Your task to perform on an android device: toggle pop-ups in chrome Image 0: 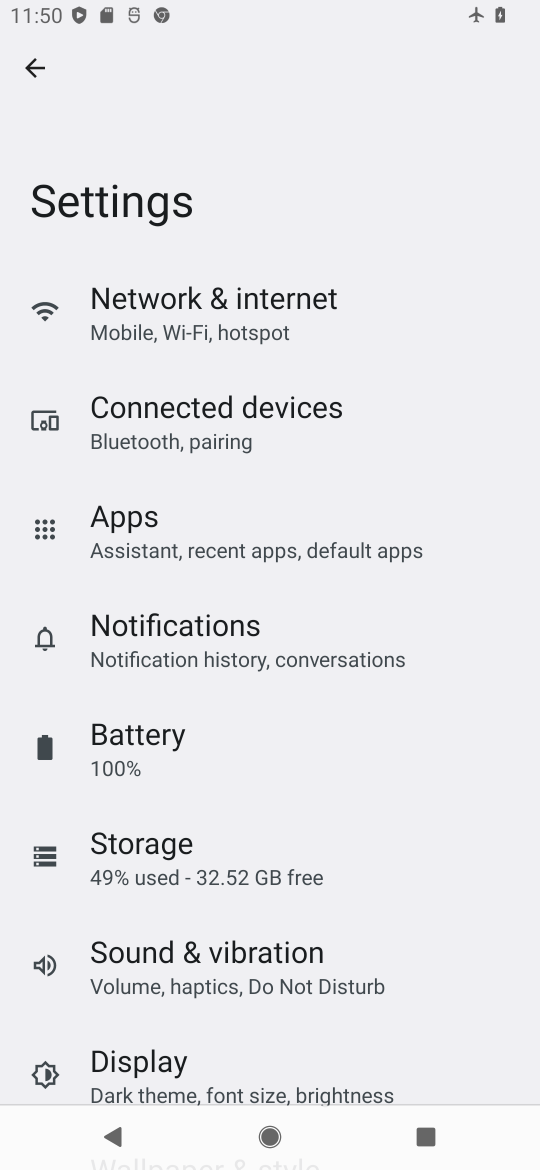
Step 0: press home button
Your task to perform on an android device: toggle pop-ups in chrome Image 1: 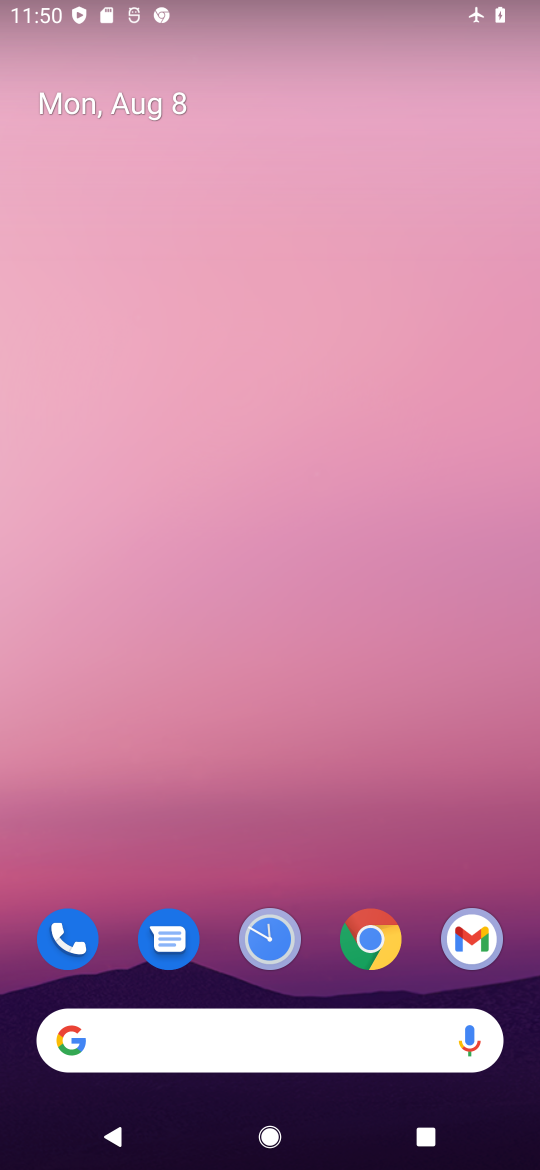
Step 1: click (372, 938)
Your task to perform on an android device: toggle pop-ups in chrome Image 2: 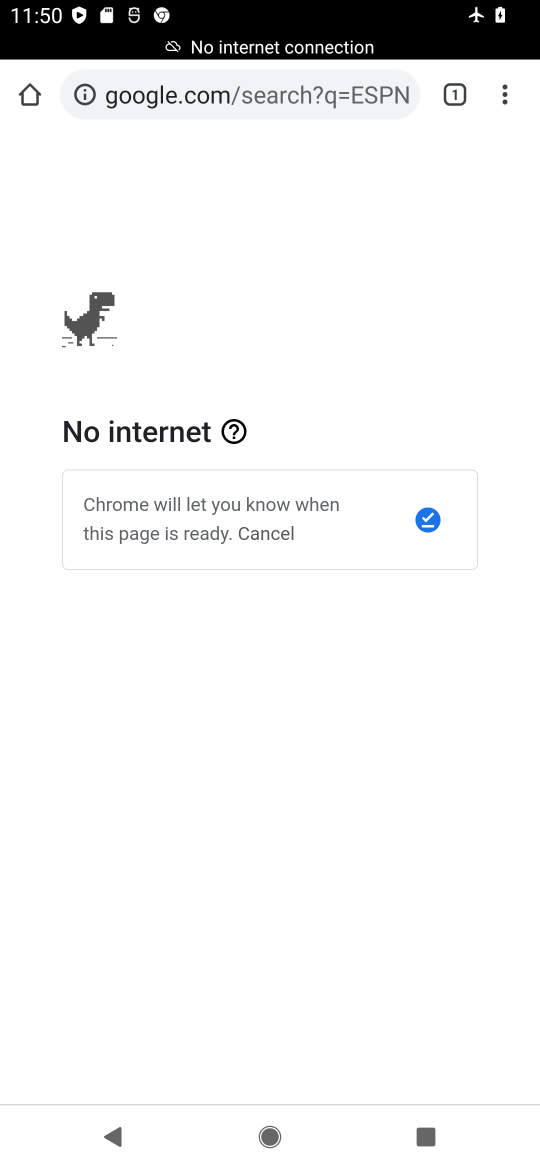
Step 2: click (505, 94)
Your task to perform on an android device: toggle pop-ups in chrome Image 3: 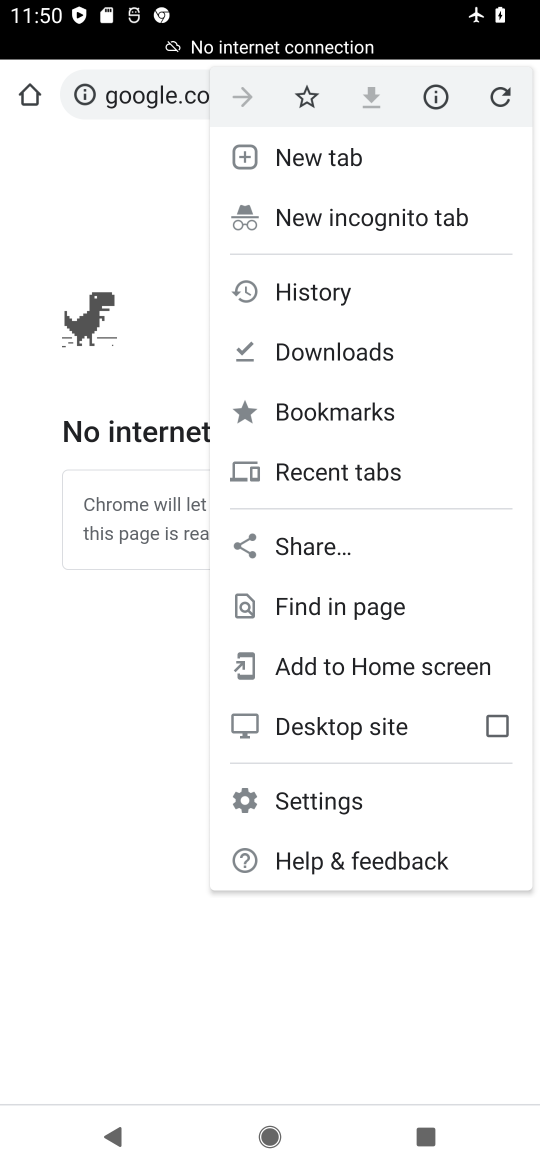
Step 3: click (312, 795)
Your task to perform on an android device: toggle pop-ups in chrome Image 4: 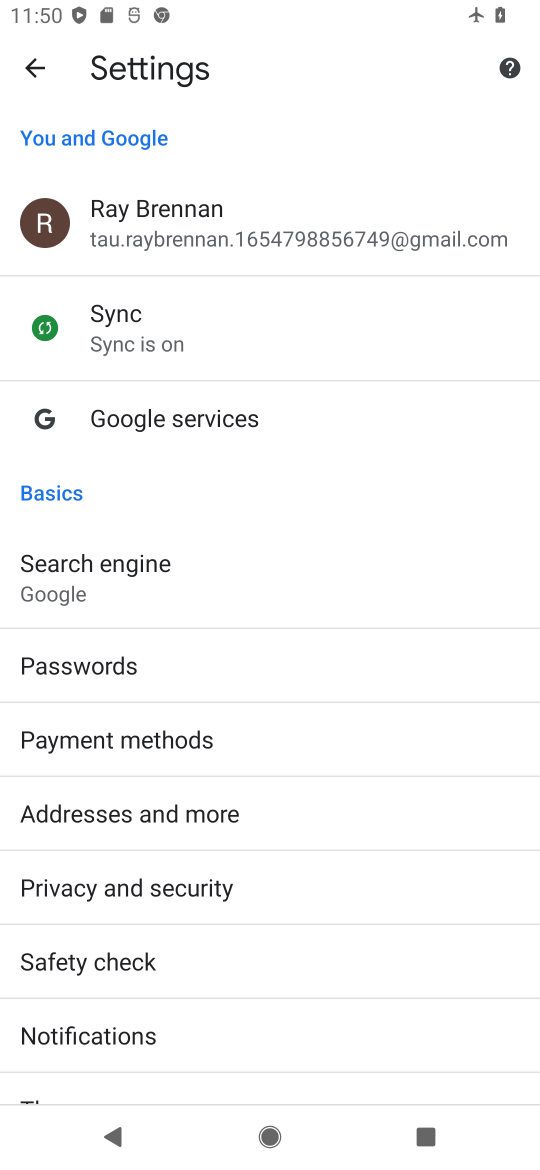
Step 4: drag from (124, 892) to (257, 700)
Your task to perform on an android device: toggle pop-ups in chrome Image 5: 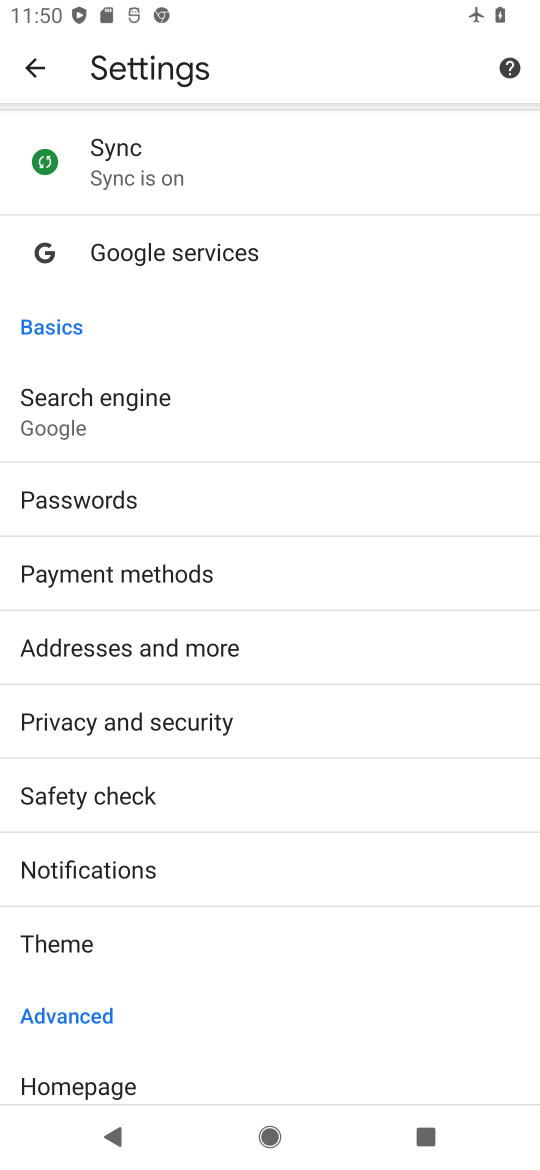
Step 5: drag from (200, 935) to (348, 764)
Your task to perform on an android device: toggle pop-ups in chrome Image 6: 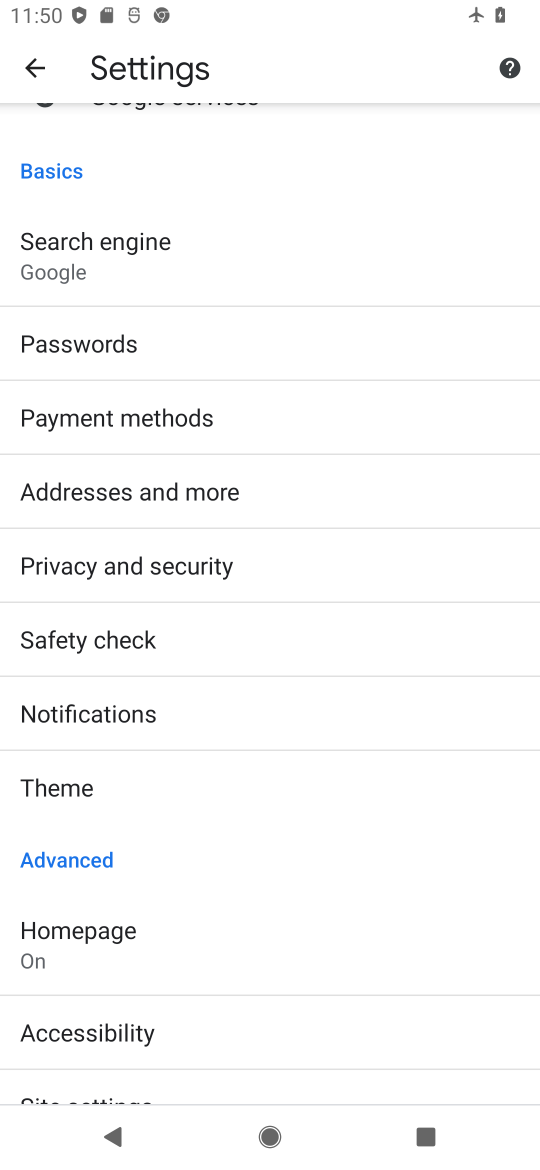
Step 6: drag from (210, 906) to (383, 705)
Your task to perform on an android device: toggle pop-ups in chrome Image 7: 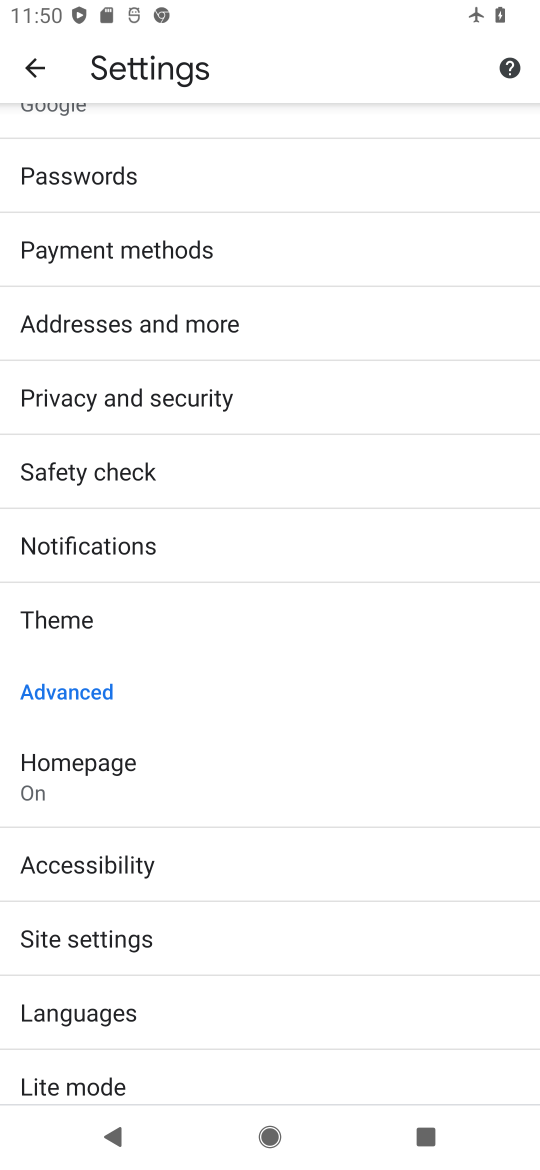
Step 7: drag from (200, 942) to (311, 784)
Your task to perform on an android device: toggle pop-ups in chrome Image 8: 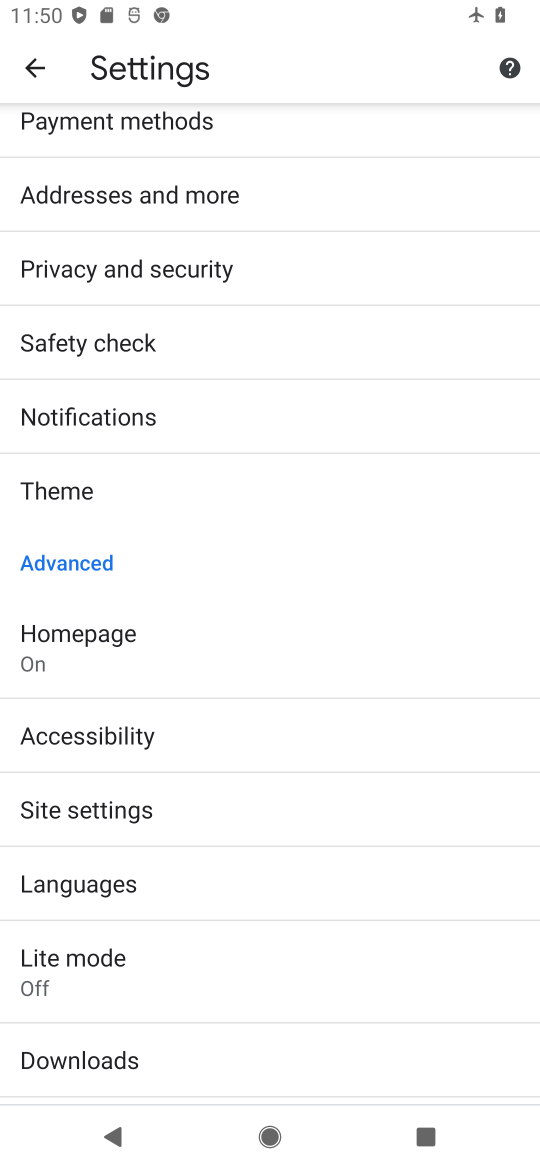
Step 8: click (146, 809)
Your task to perform on an android device: toggle pop-ups in chrome Image 9: 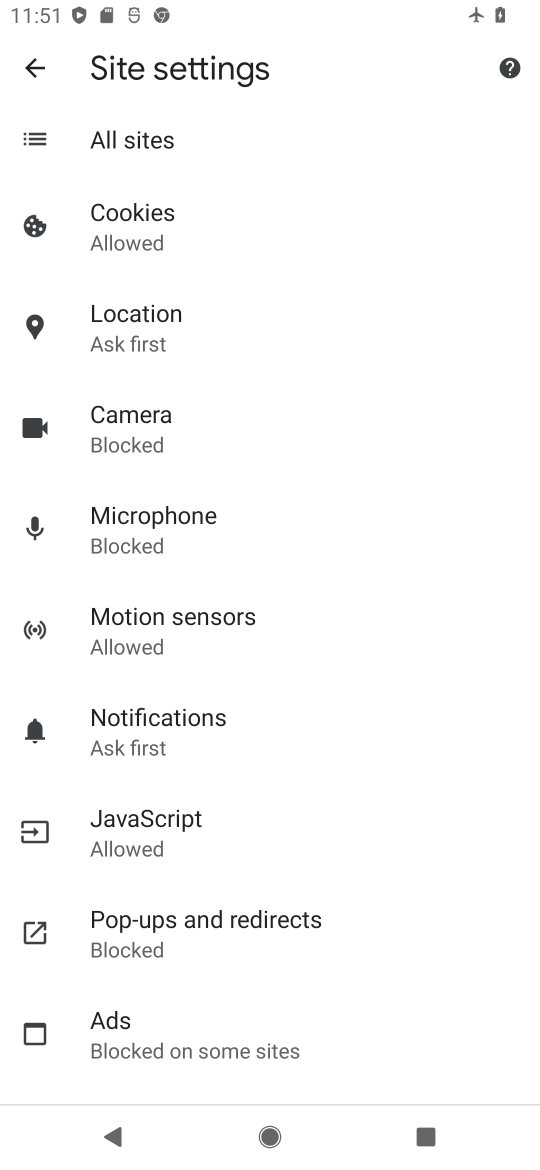
Step 9: click (228, 922)
Your task to perform on an android device: toggle pop-ups in chrome Image 10: 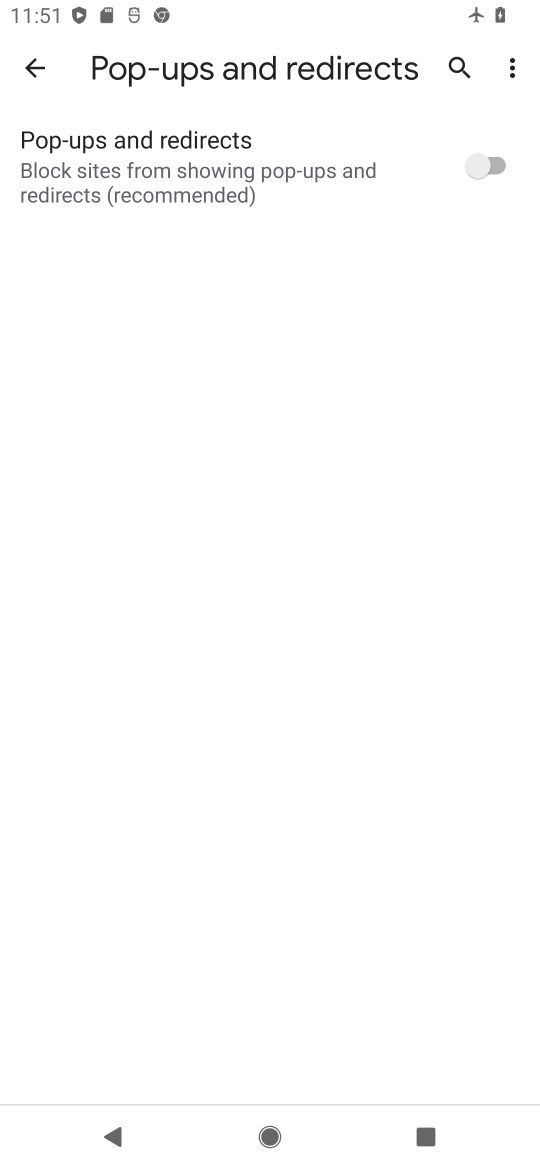
Step 10: click (504, 165)
Your task to perform on an android device: toggle pop-ups in chrome Image 11: 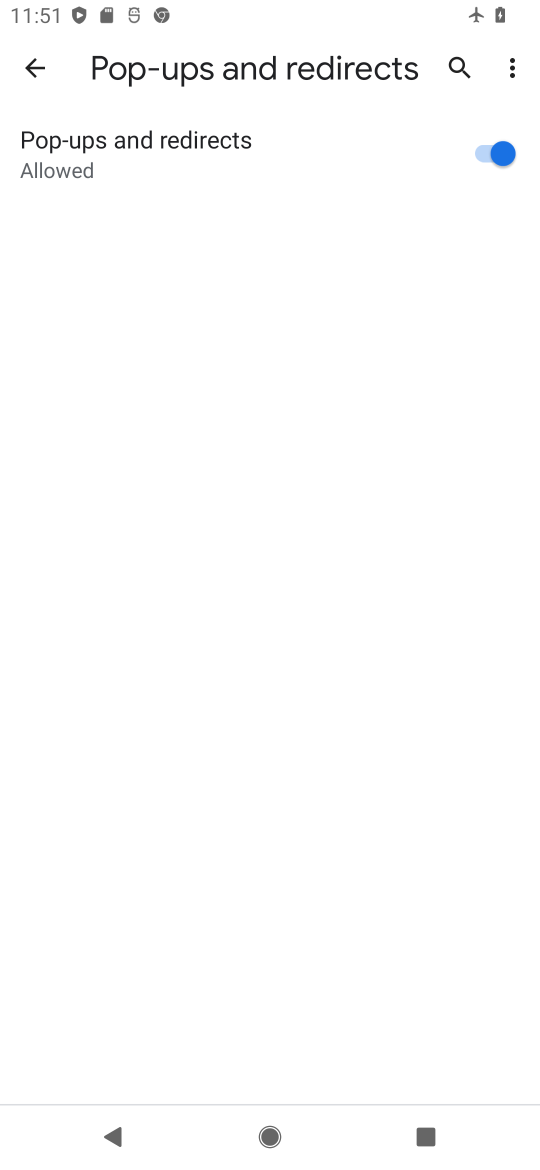
Step 11: task complete